Your task to perform on an android device: open a bookmark in the chrome app Image 0: 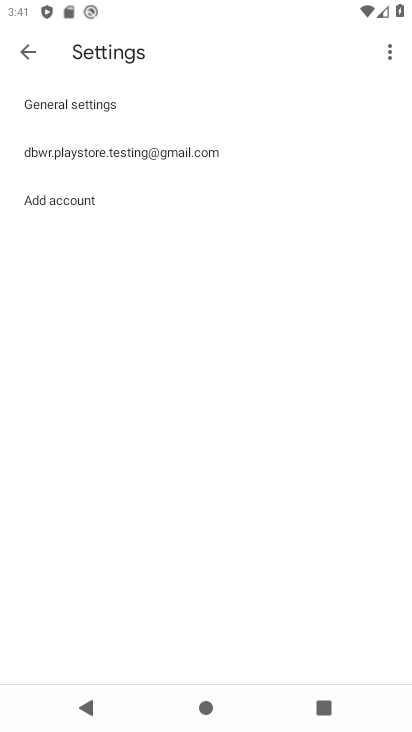
Step 0: press home button
Your task to perform on an android device: open a bookmark in the chrome app Image 1: 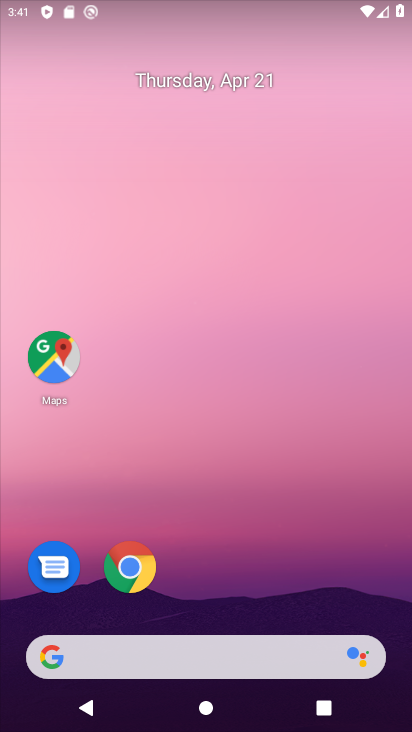
Step 1: drag from (244, 597) to (252, 58)
Your task to perform on an android device: open a bookmark in the chrome app Image 2: 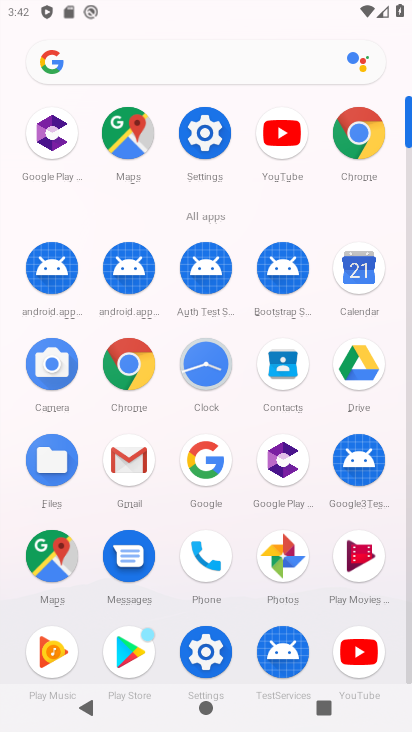
Step 2: click (134, 361)
Your task to perform on an android device: open a bookmark in the chrome app Image 3: 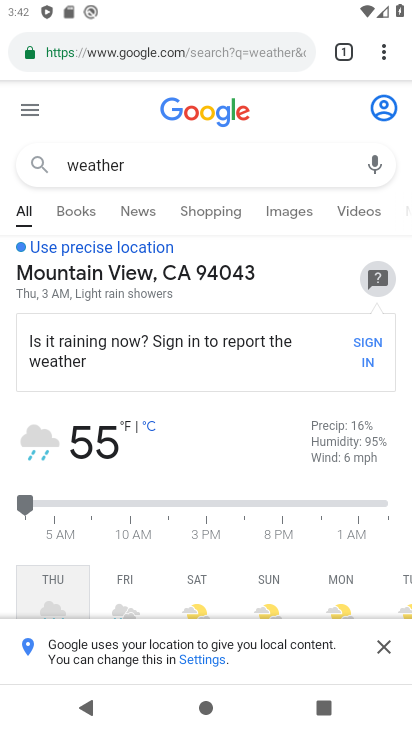
Step 3: task complete